Your task to perform on an android device: delete location history Image 0: 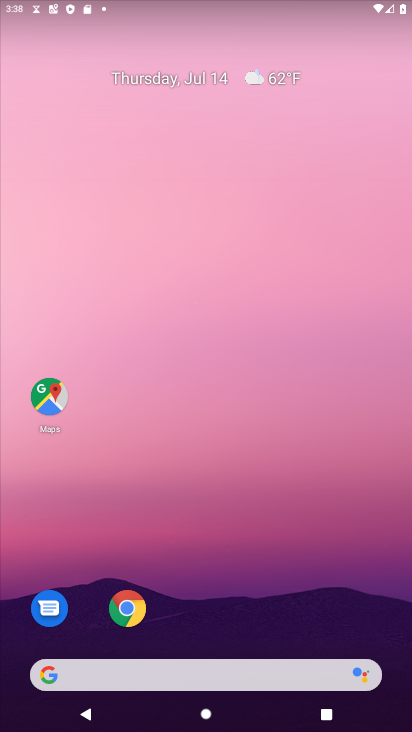
Step 0: click (123, 618)
Your task to perform on an android device: delete location history Image 1: 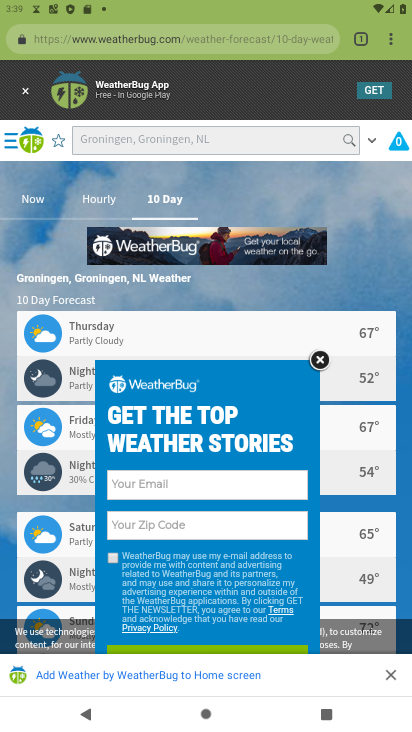
Step 1: drag from (391, 38) to (263, 223)
Your task to perform on an android device: delete location history Image 2: 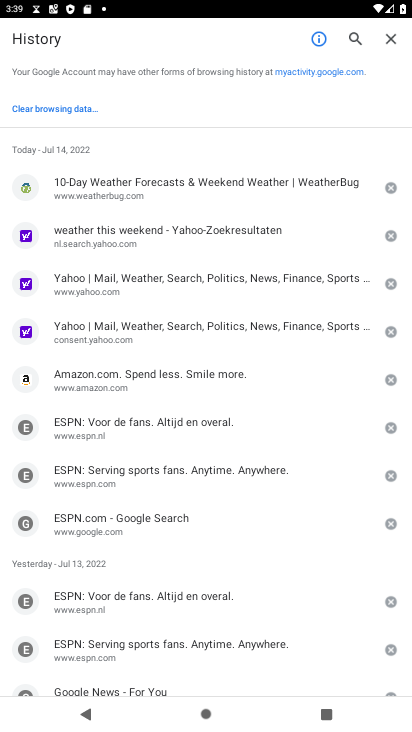
Step 2: click (57, 112)
Your task to perform on an android device: delete location history Image 3: 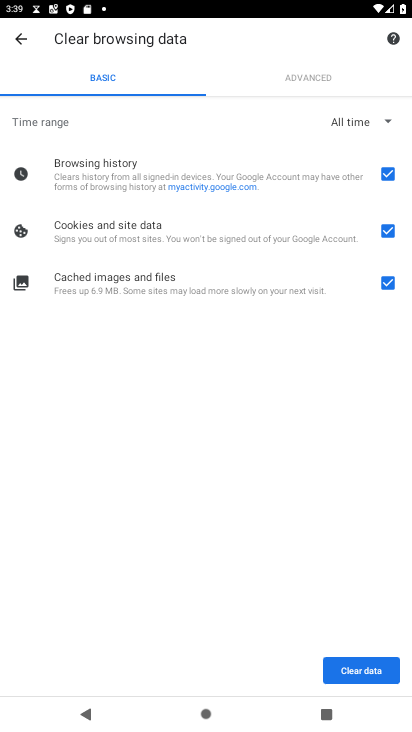
Step 3: click (344, 667)
Your task to perform on an android device: delete location history Image 4: 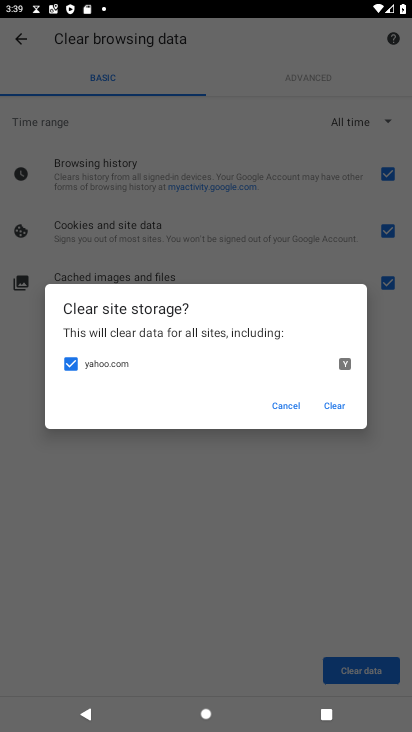
Step 4: click (340, 403)
Your task to perform on an android device: delete location history Image 5: 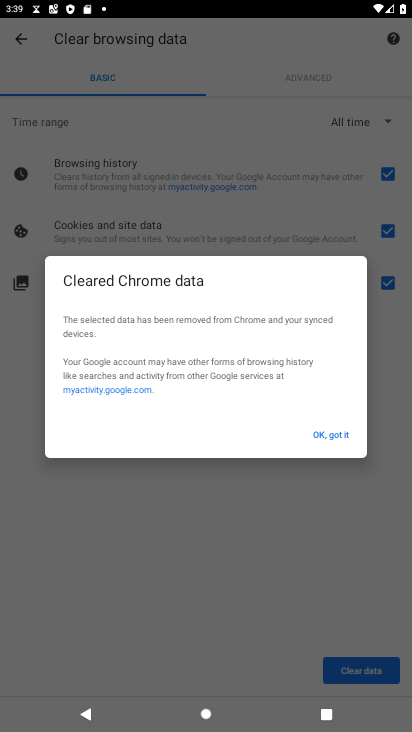
Step 5: click (343, 431)
Your task to perform on an android device: delete location history Image 6: 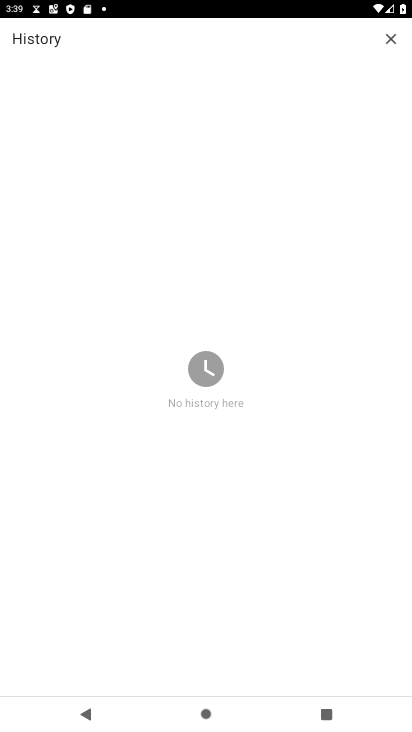
Step 6: task complete